Your task to perform on an android device: toggle improve location accuracy Image 0: 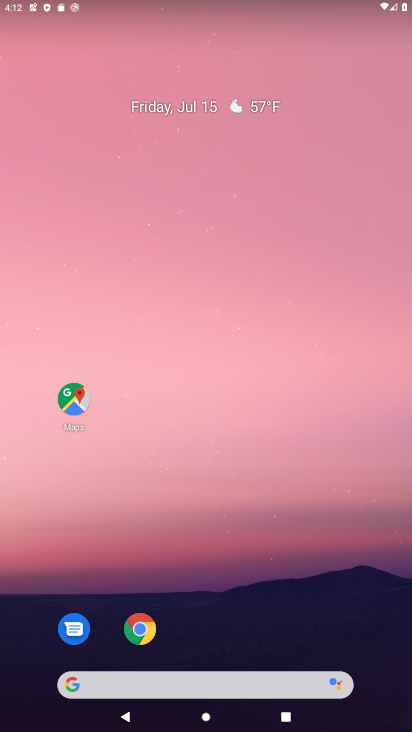
Step 0: drag from (228, 637) to (260, 24)
Your task to perform on an android device: toggle improve location accuracy Image 1: 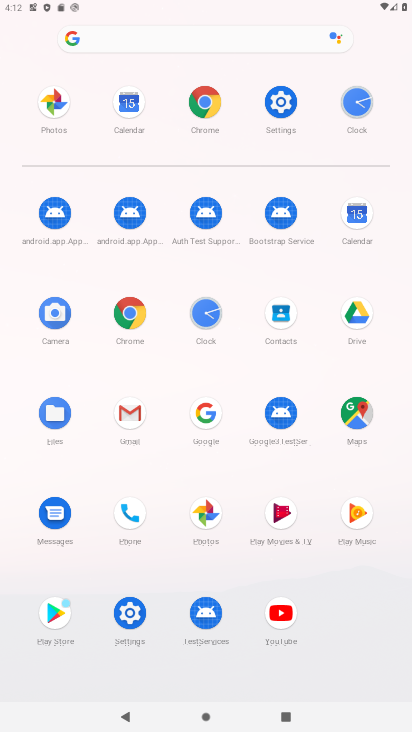
Step 1: click (286, 103)
Your task to perform on an android device: toggle improve location accuracy Image 2: 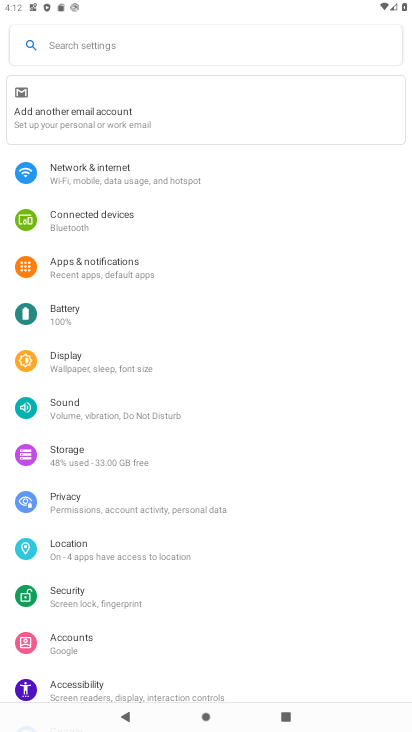
Step 2: click (67, 546)
Your task to perform on an android device: toggle improve location accuracy Image 3: 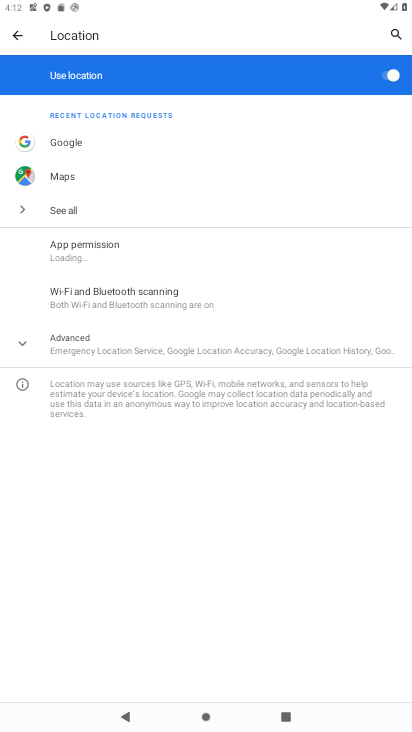
Step 3: click (68, 340)
Your task to perform on an android device: toggle improve location accuracy Image 4: 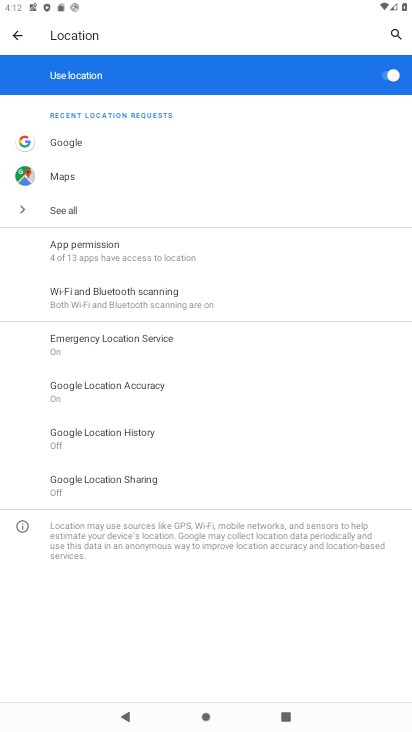
Step 4: click (144, 388)
Your task to perform on an android device: toggle improve location accuracy Image 5: 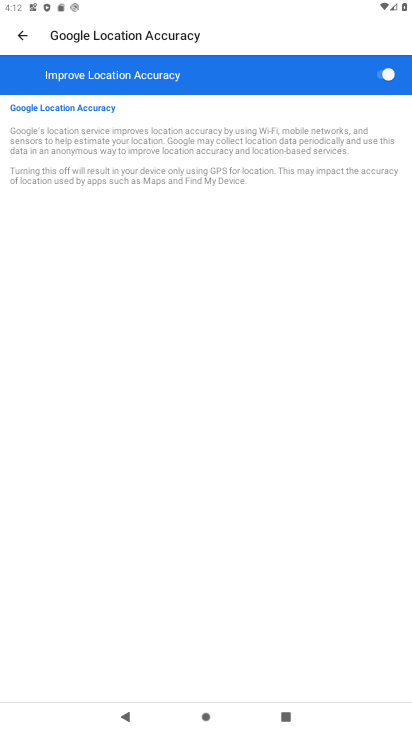
Step 5: click (385, 71)
Your task to perform on an android device: toggle improve location accuracy Image 6: 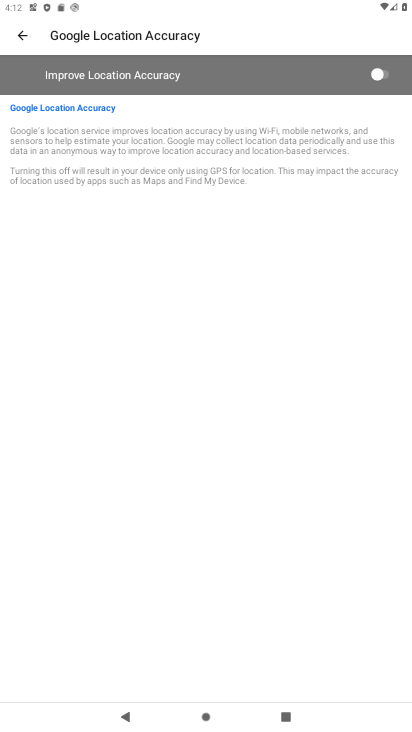
Step 6: task complete